Your task to perform on an android device: toggle show notifications on the lock screen Image 0: 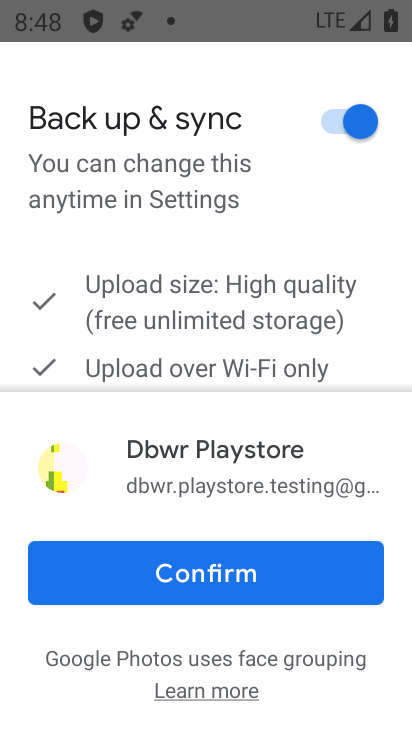
Step 0: press home button
Your task to perform on an android device: toggle show notifications on the lock screen Image 1: 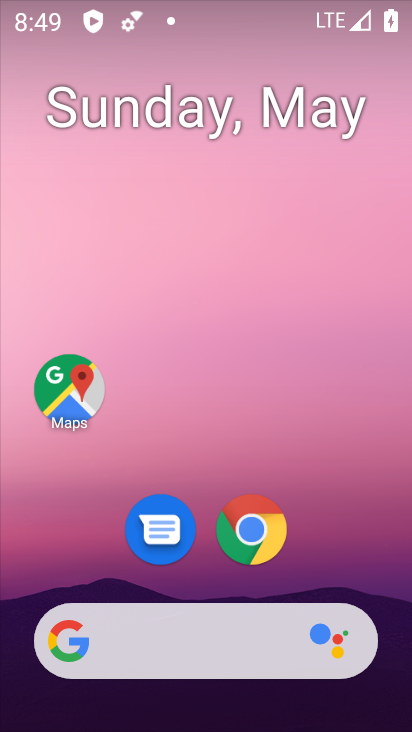
Step 1: drag from (200, 419) to (120, 88)
Your task to perform on an android device: toggle show notifications on the lock screen Image 2: 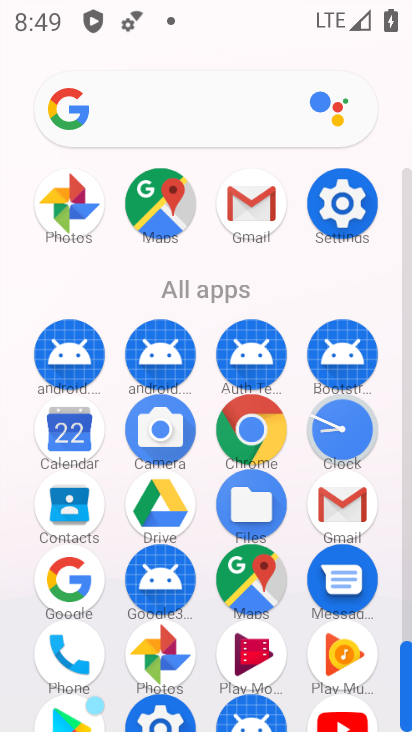
Step 2: click (331, 180)
Your task to perform on an android device: toggle show notifications on the lock screen Image 3: 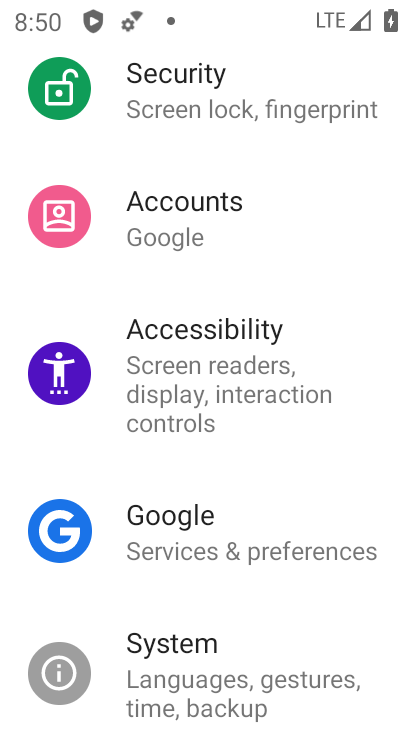
Step 3: drag from (284, 258) to (252, 594)
Your task to perform on an android device: toggle show notifications on the lock screen Image 4: 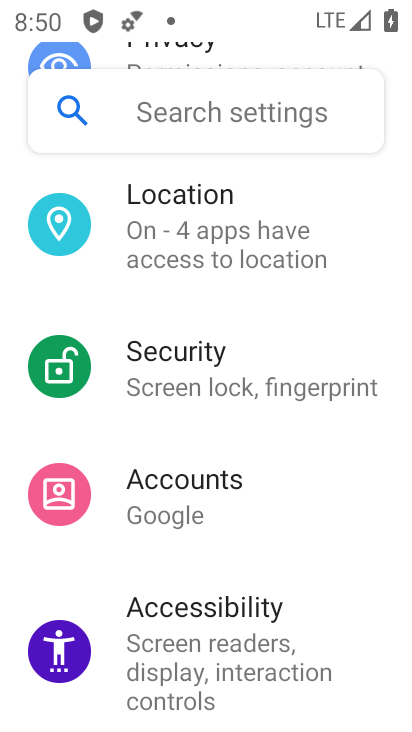
Step 4: drag from (208, 293) to (179, 464)
Your task to perform on an android device: toggle show notifications on the lock screen Image 5: 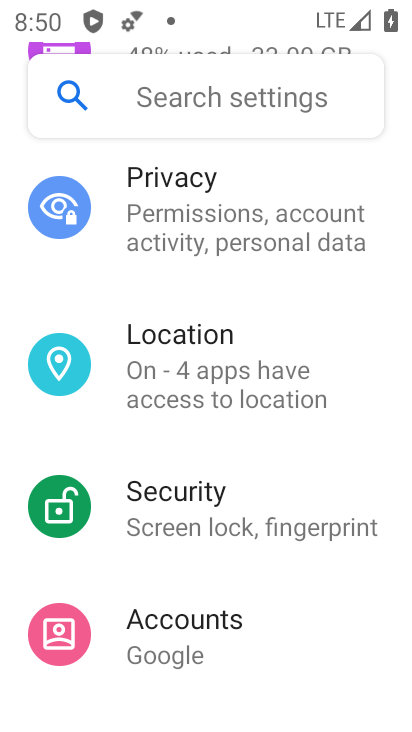
Step 5: drag from (273, 138) to (220, 475)
Your task to perform on an android device: toggle show notifications on the lock screen Image 6: 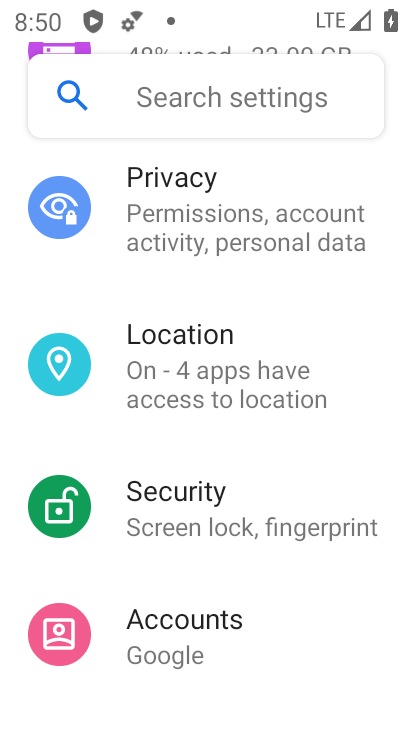
Step 6: drag from (248, 261) to (230, 490)
Your task to perform on an android device: toggle show notifications on the lock screen Image 7: 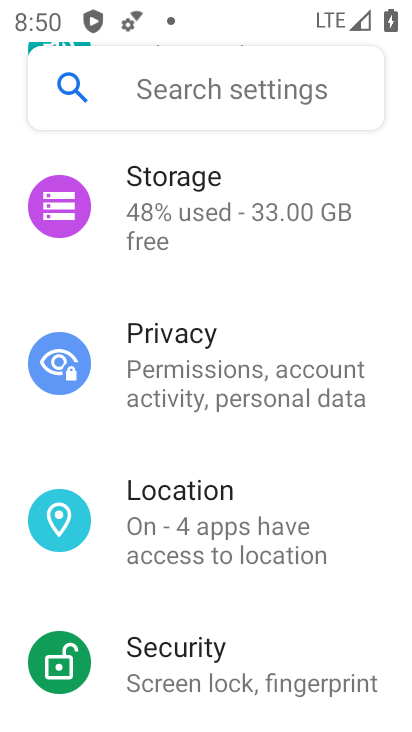
Step 7: drag from (250, 322) to (244, 587)
Your task to perform on an android device: toggle show notifications on the lock screen Image 8: 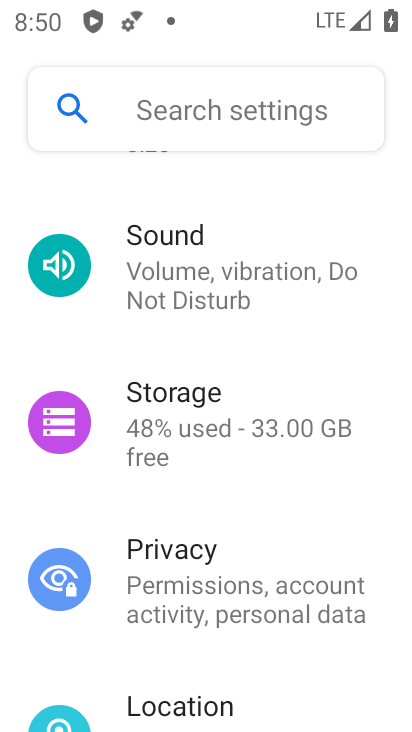
Step 8: drag from (256, 338) to (217, 726)
Your task to perform on an android device: toggle show notifications on the lock screen Image 9: 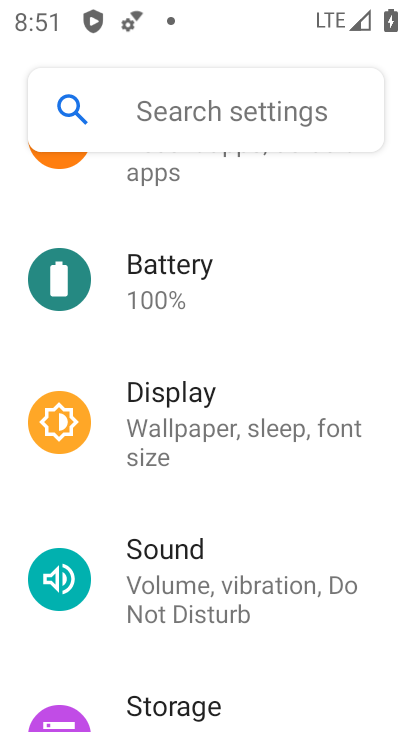
Step 9: drag from (257, 340) to (278, 634)
Your task to perform on an android device: toggle show notifications on the lock screen Image 10: 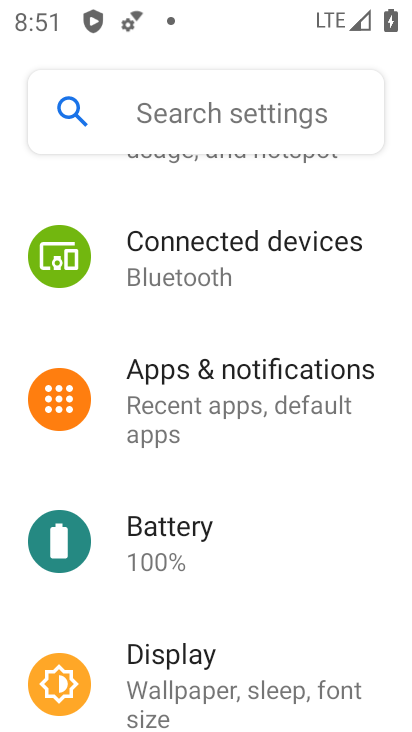
Step 10: drag from (285, 257) to (271, 612)
Your task to perform on an android device: toggle show notifications on the lock screen Image 11: 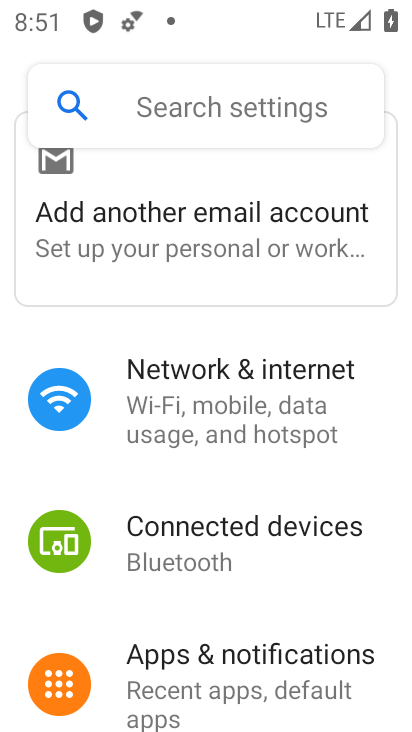
Step 11: click (204, 656)
Your task to perform on an android device: toggle show notifications on the lock screen Image 12: 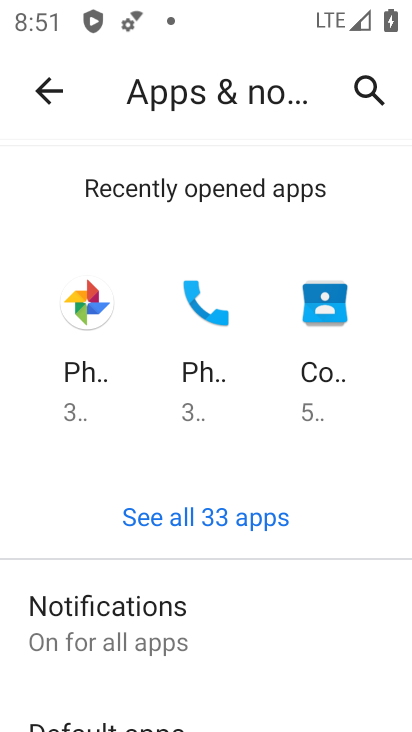
Step 12: drag from (211, 678) to (274, 457)
Your task to perform on an android device: toggle show notifications on the lock screen Image 13: 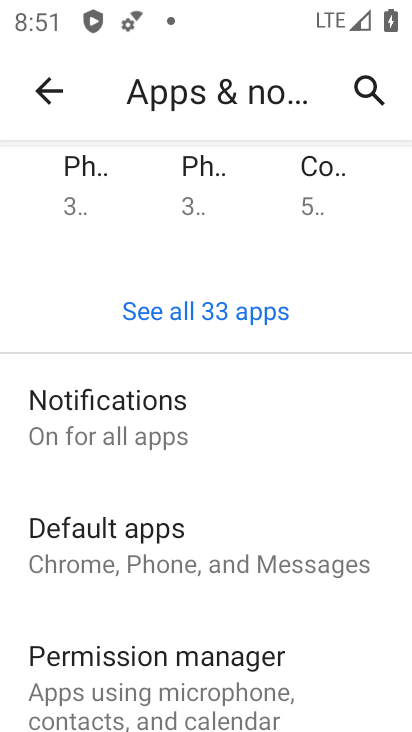
Step 13: click (258, 424)
Your task to perform on an android device: toggle show notifications on the lock screen Image 14: 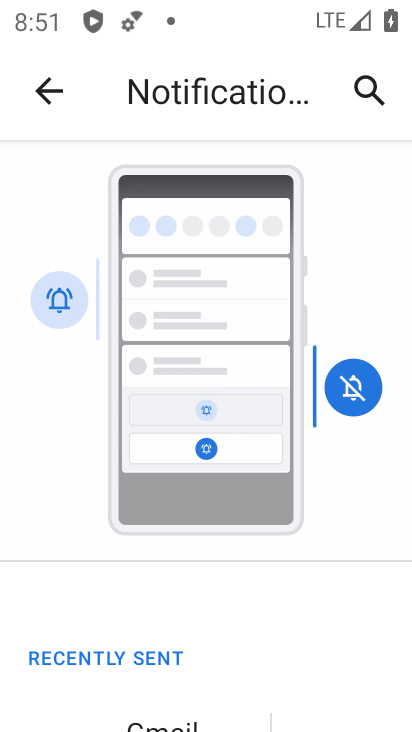
Step 14: drag from (184, 653) to (232, 178)
Your task to perform on an android device: toggle show notifications on the lock screen Image 15: 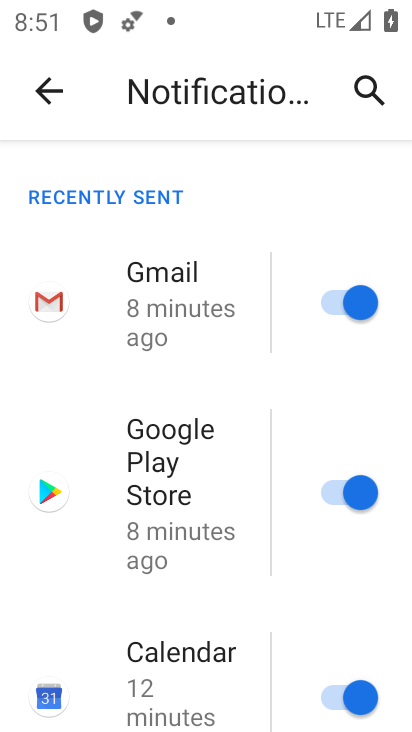
Step 15: drag from (174, 633) to (177, 80)
Your task to perform on an android device: toggle show notifications on the lock screen Image 16: 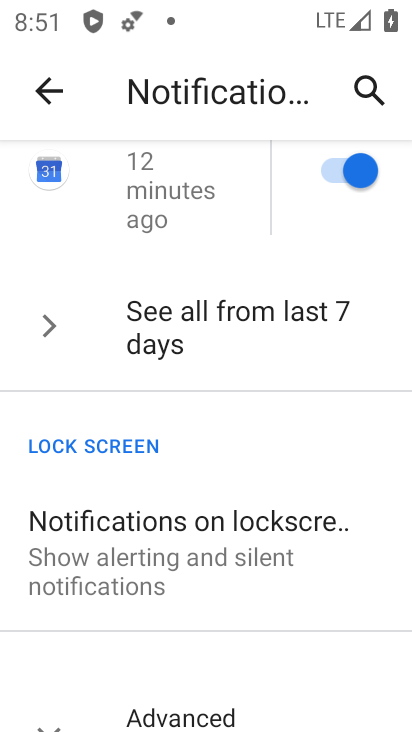
Step 16: click (140, 557)
Your task to perform on an android device: toggle show notifications on the lock screen Image 17: 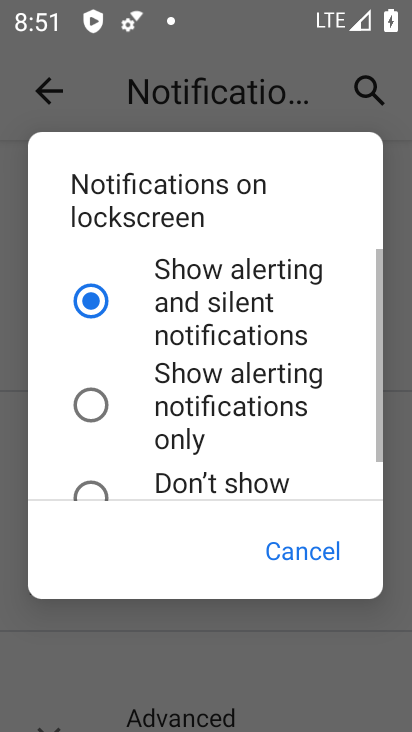
Step 17: click (223, 366)
Your task to perform on an android device: toggle show notifications on the lock screen Image 18: 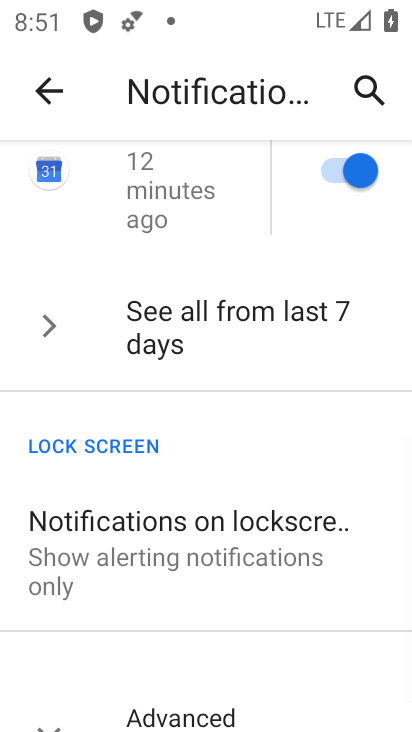
Step 18: task complete